Your task to perform on an android device: show emergency info Image 0: 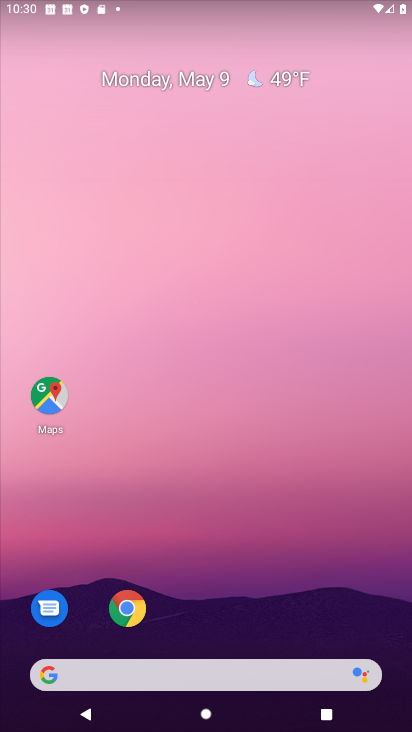
Step 0: drag from (314, 638) to (385, 187)
Your task to perform on an android device: show emergency info Image 1: 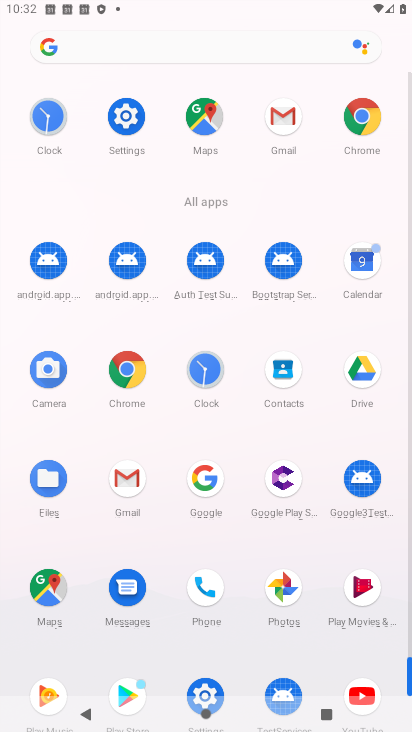
Step 1: click (208, 689)
Your task to perform on an android device: show emergency info Image 2: 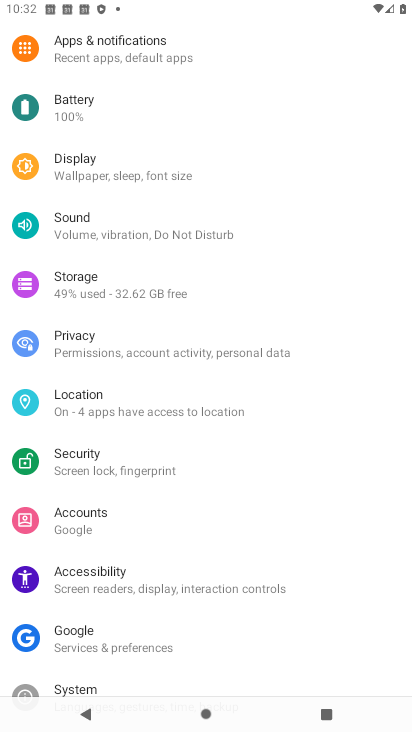
Step 2: drag from (181, 650) to (151, 319)
Your task to perform on an android device: show emergency info Image 3: 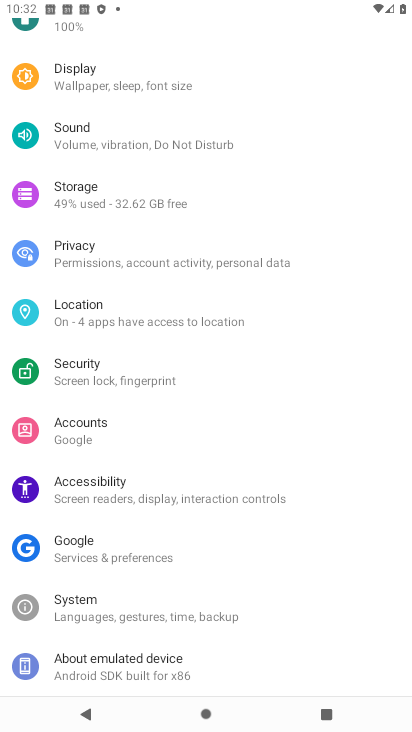
Step 3: click (125, 676)
Your task to perform on an android device: show emergency info Image 4: 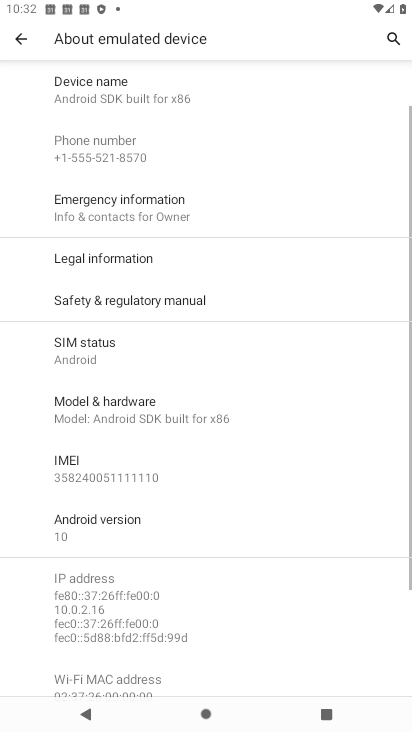
Step 4: click (112, 217)
Your task to perform on an android device: show emergency info Image 5: 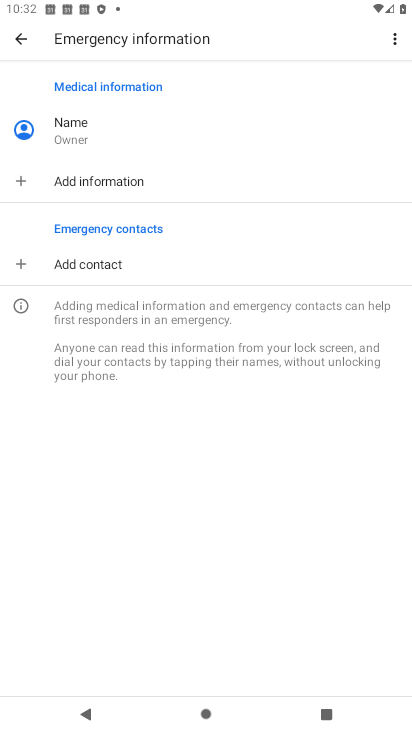
Step 5: task complete